Your task to perform on an android device: delete a single message in the gmail app Image 0: 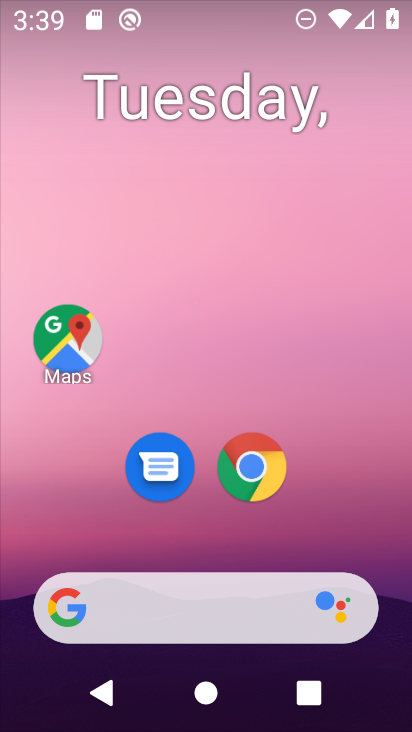
Step 0: drag from (187, 557) to (198, 12)
Your task to perform on an android device: delete a single message in the gmail app Image 1: 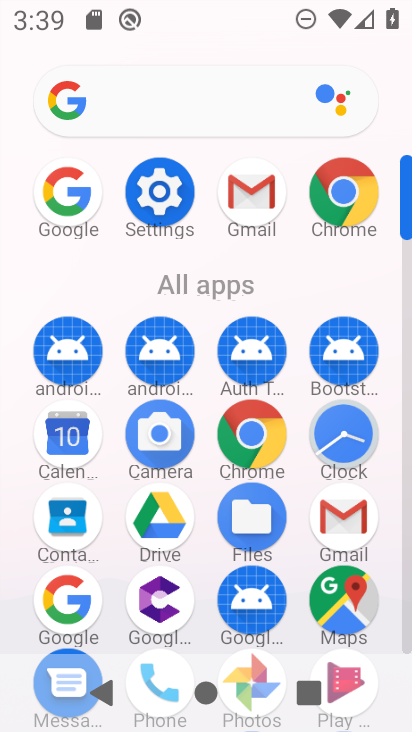
Step 1: click (267, 211)
Your task to perform on an android device: delete a single message in the gmail app Image 2: 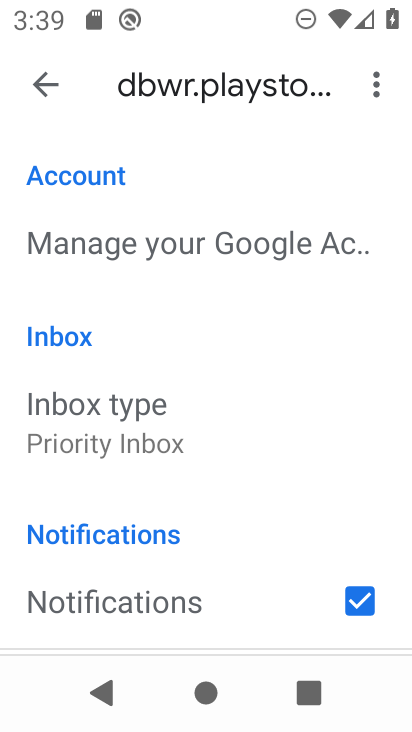
Step 2: click (41, 89)
Your task to perform on an android device: delete a single message in the gmail app Image 3: 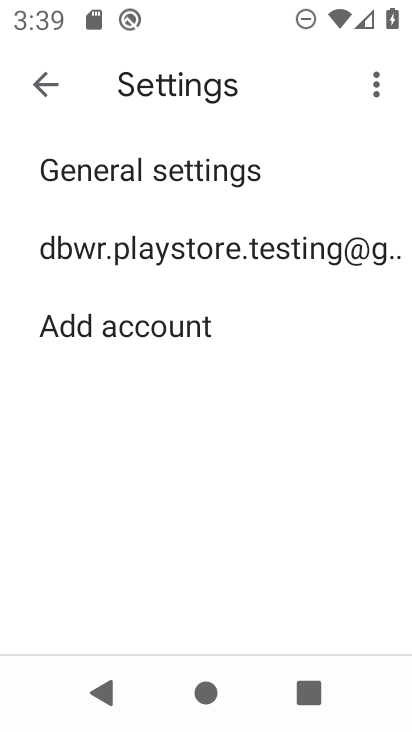
Step 3: click (41, 89)
Your task to perform on an android device: delete a single message in the gmail app Image 4: 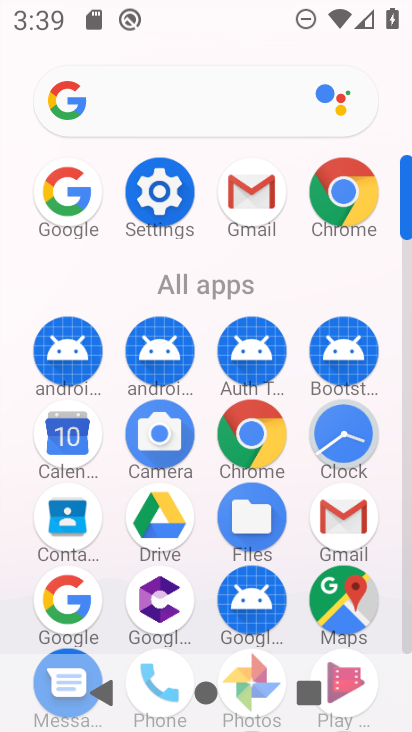
Step 4: task complete